Your task to perform on an android device: Go to CNN.com Image 0: 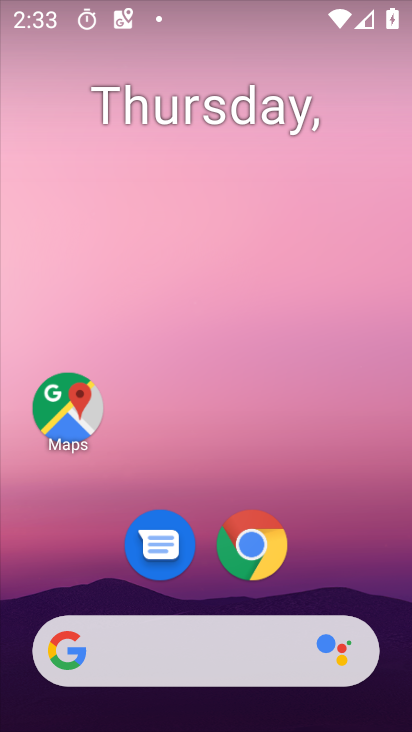
Step 0: click (252, 540)
Your task to perform on an android device: Go to CNN.com Image 1: 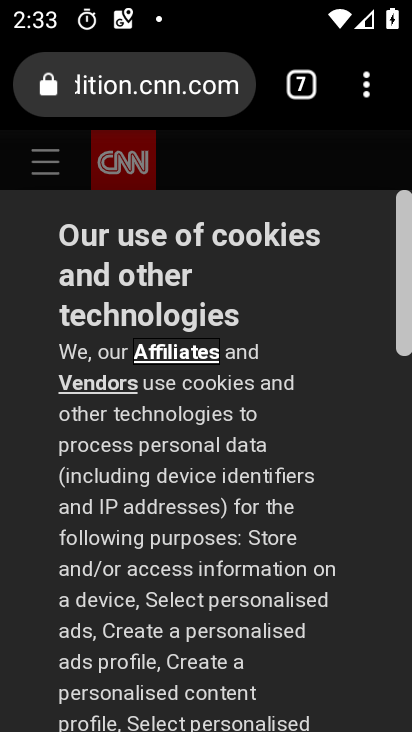
Step 1: task complete